Your task to perform on an android device: Search for macbook air on bestbuy.com, select the first entry, add it to the cart, then select checkout. Image 0: 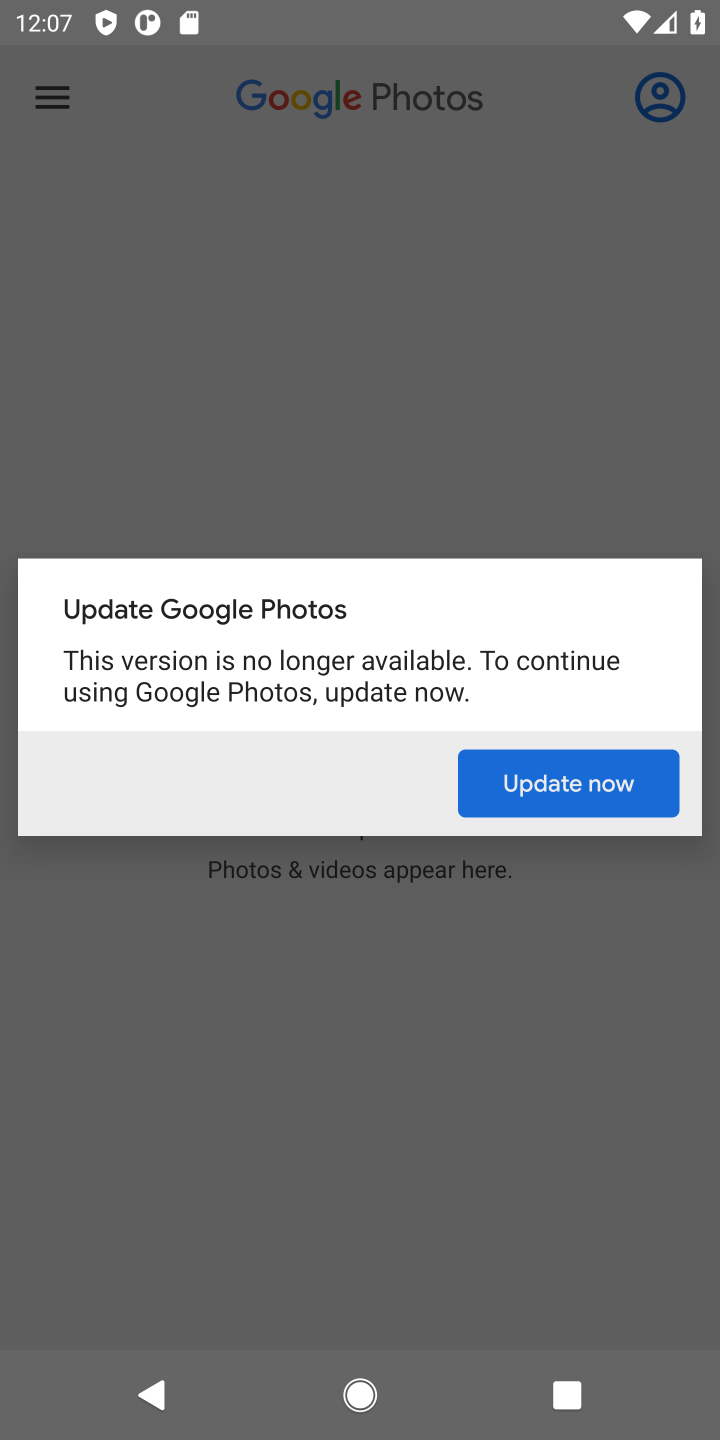
Step 0: press home button
Your task to perform on an android device: Search for macbook air on bestbuy.com, select the first entry, add it to the cart, then select checkout. Image 1: 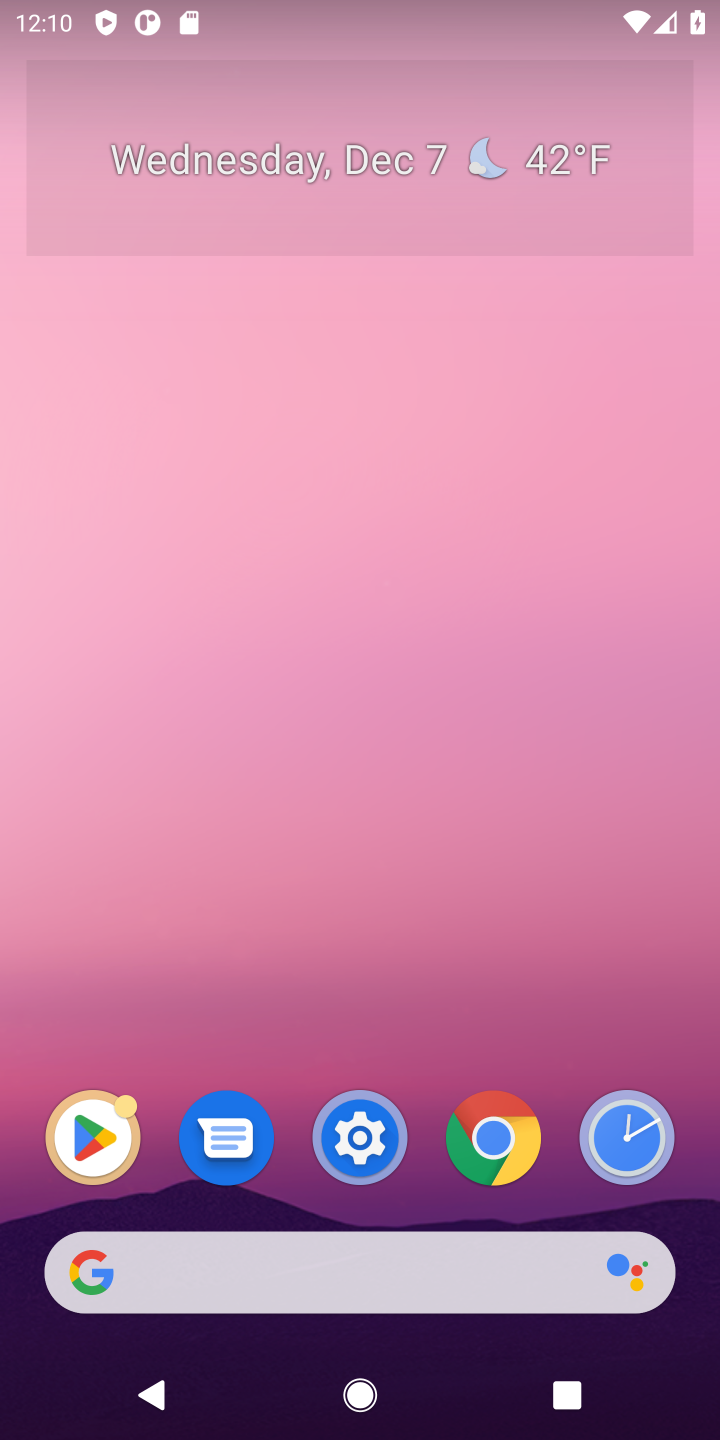
Step 1: task complete